Your task to perform on an android device: manage bookmarks in the chrome app Image 0: 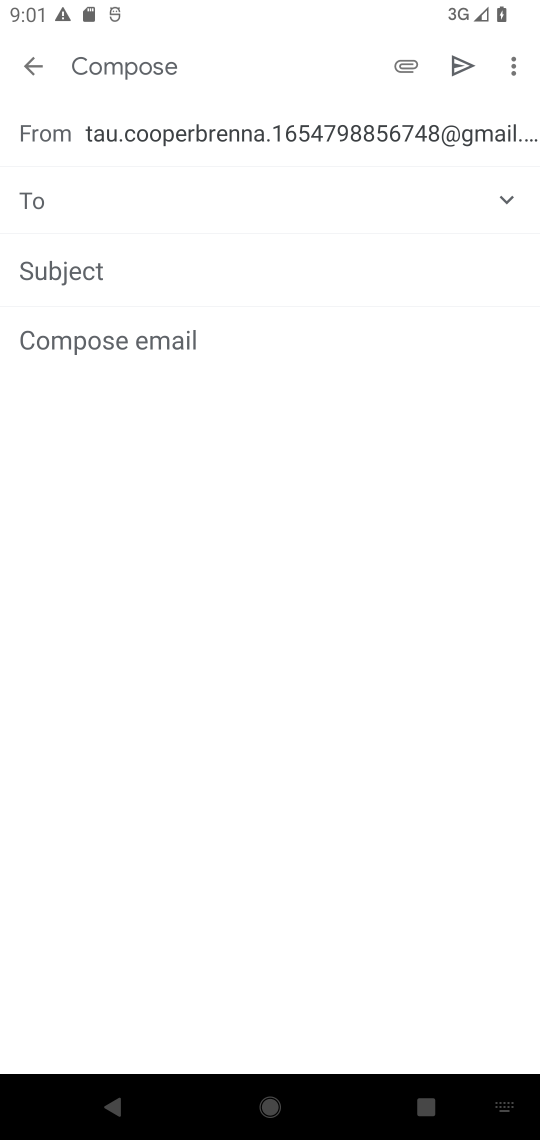
Step 0: press home button
Your task to perform on an android device: manage bookmarks in the chrome app Image 1: 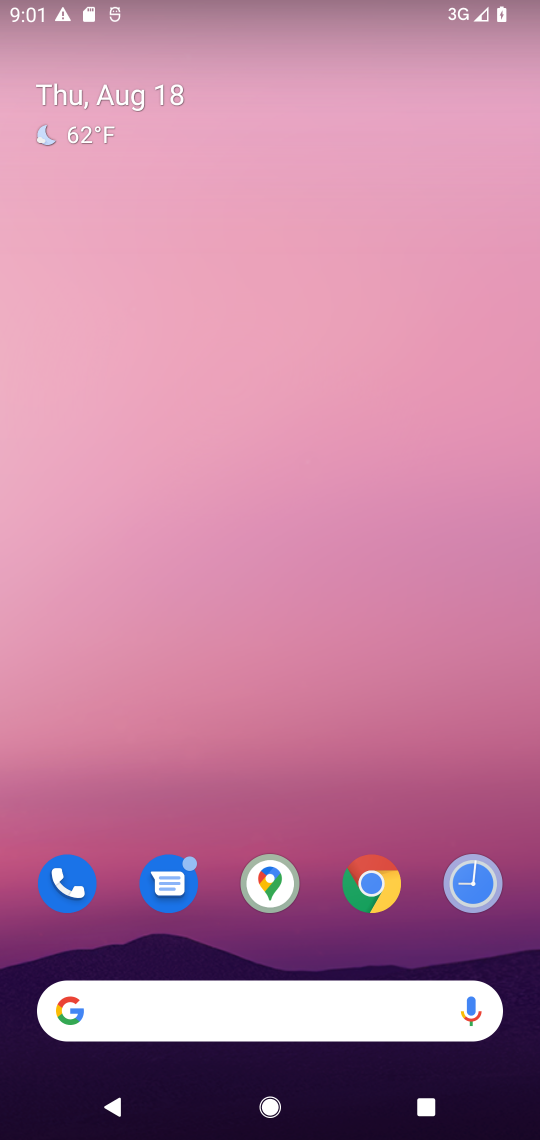
Step 1: click (386, 911)
Your task to perform on an android device: manage bookmarks in the chrome app Image 2: 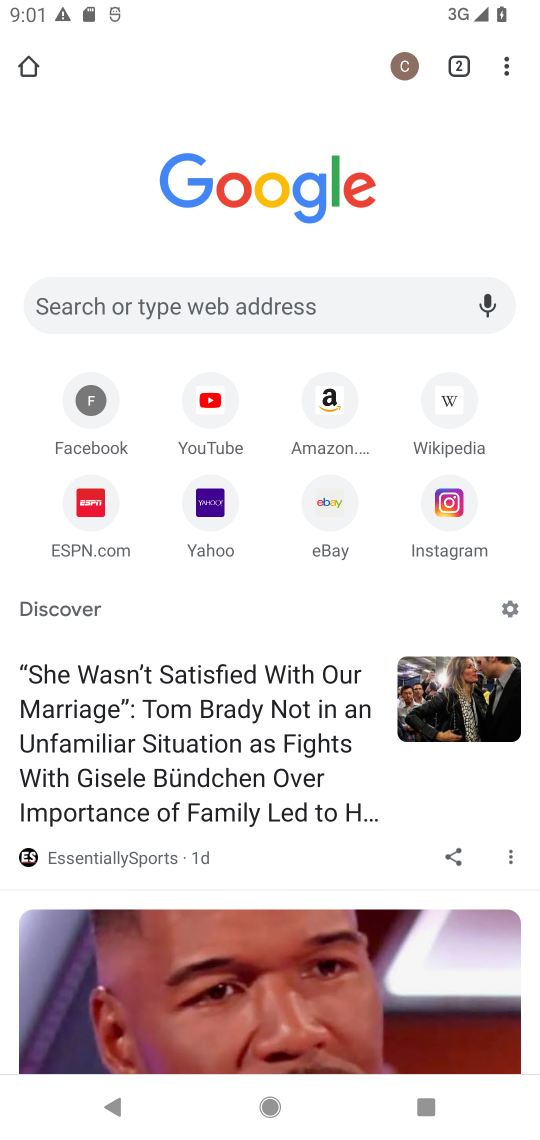
Step 2: click (513, 72)
Your task to perform on an android device: manage bookmarks in the chrome app Image 3: 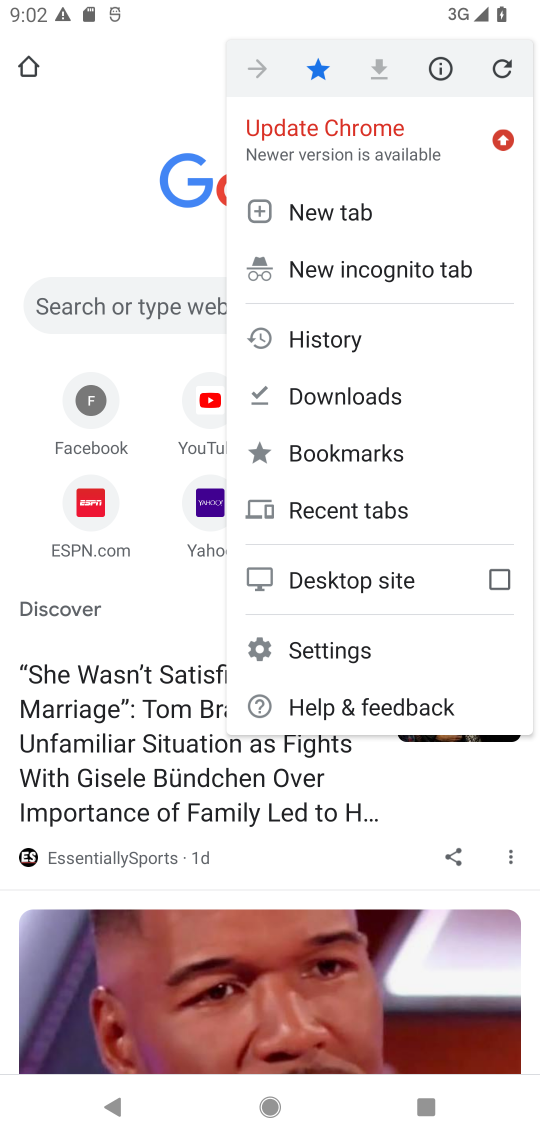
Step 3: click (363, 465)
Your task to perform on an android device: manage bookmarks in the chrome app Image 4: 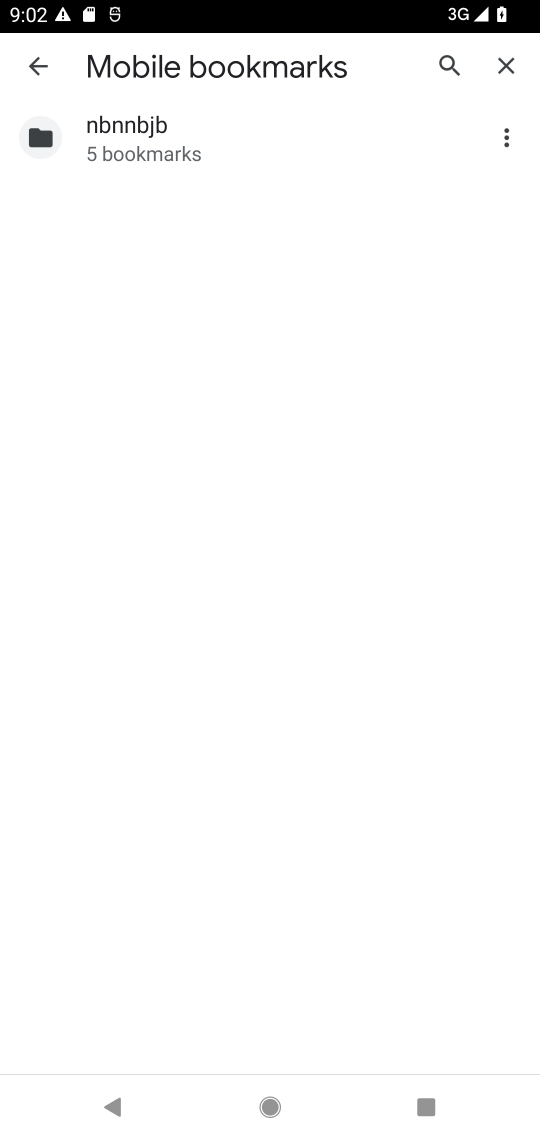
Step 4: task complete